Your task to perform on an android device: open app "Indeed Job Search" Image 0: 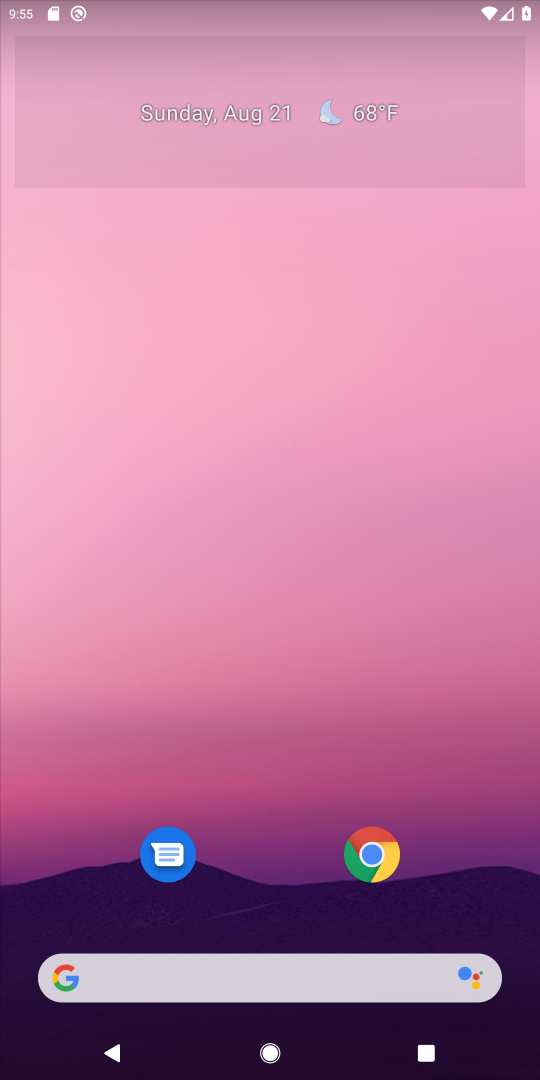
Step 0: drag from (290, 903) to (391, 19)
Your task to perform on an android device: open app "Indeed Job Search" Image 1: 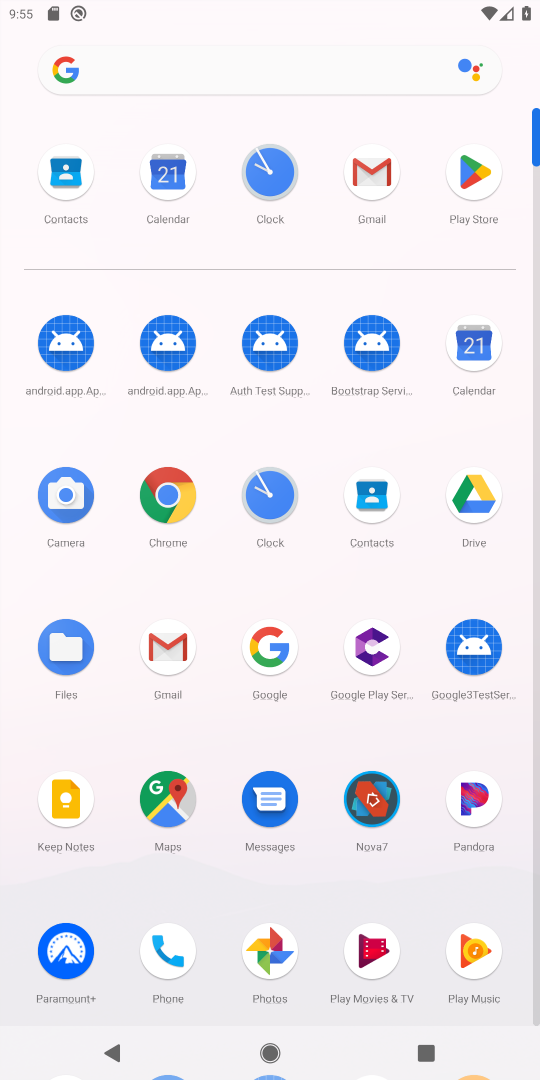
Step 1: click (460, 184)
Your task to perform on an android device: open app "Indeed Job Search" Image 2: 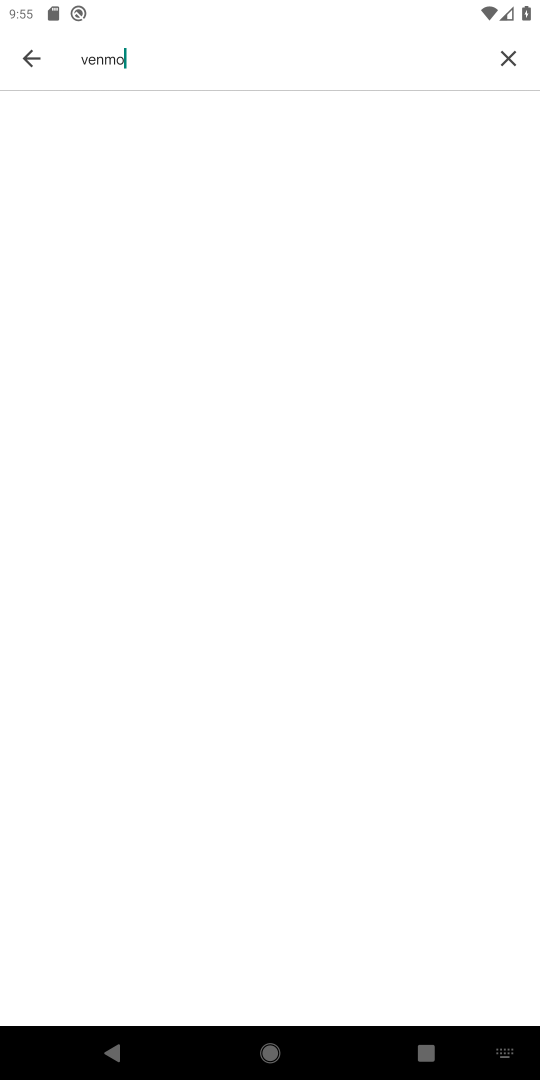
Step 2: click (493, 67)
Your task to perform on an android device: open app "Indeed Job Search" Image 3: 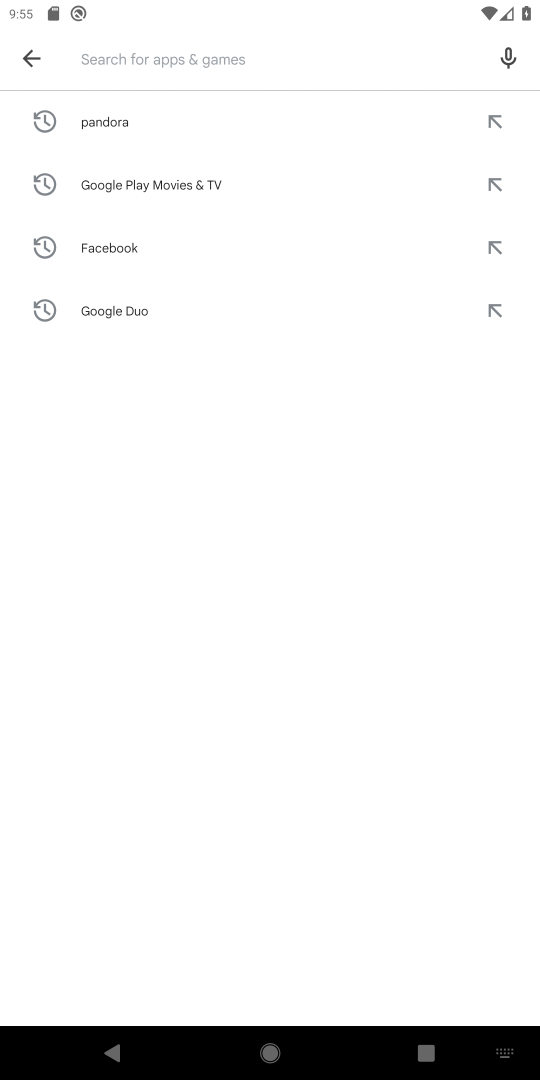
Step 3: type "indeed"
Your task to perform on an android device: open app "Indeed Job Search" Image 4: 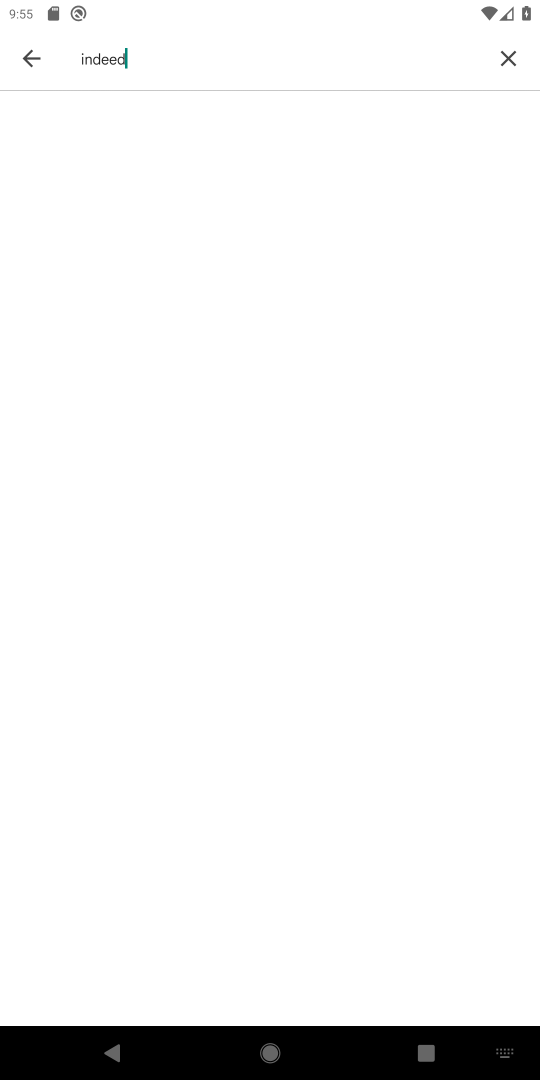
Step 4: click (127, 112)
Your task to perform on an android device: open app "Indeed Job Search" Image 5: 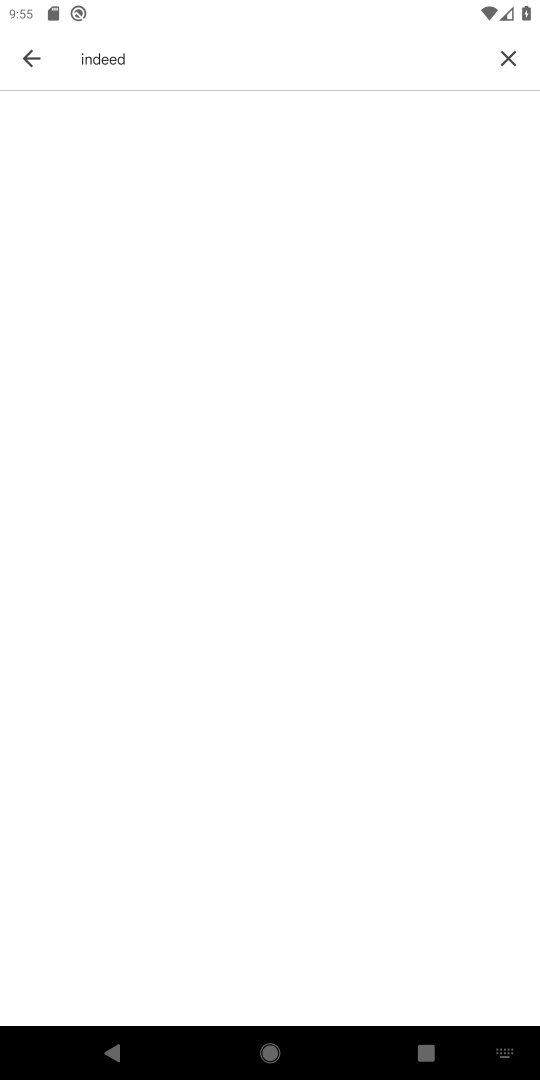
Step 5: task complete